Your task to perform on an android device: change the upload size in google photos Image 0: 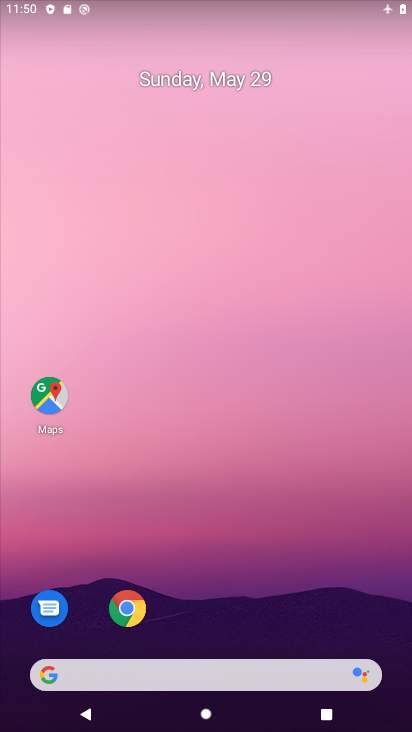
Step 0: drag from (208, 642) to (131, 149)
Your task to perform on an android device: change the upload size in google photos Image 1: 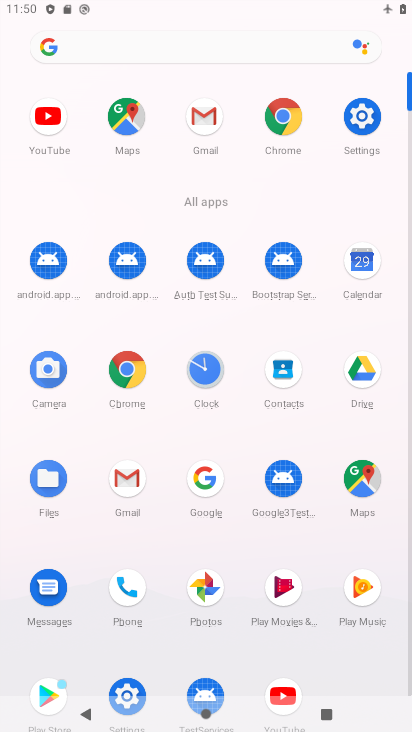
Step 1: click (203, 570)
Your task to perform on an android device: change the upload size in google photos Image 2: 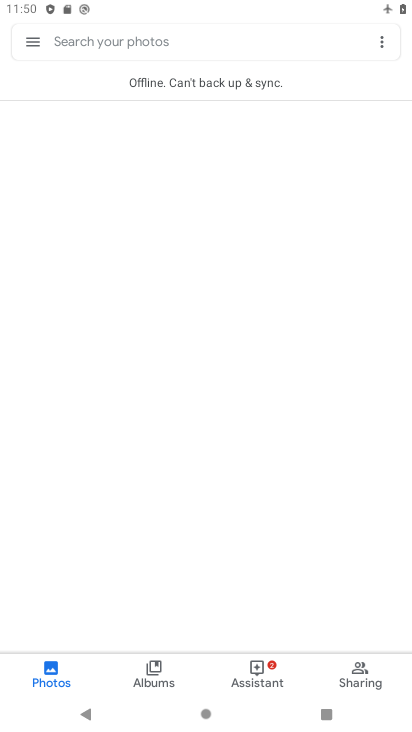
Step 2: click (36, 39)
Your task to perform on an android device: change the upload size in google photos Image 3: 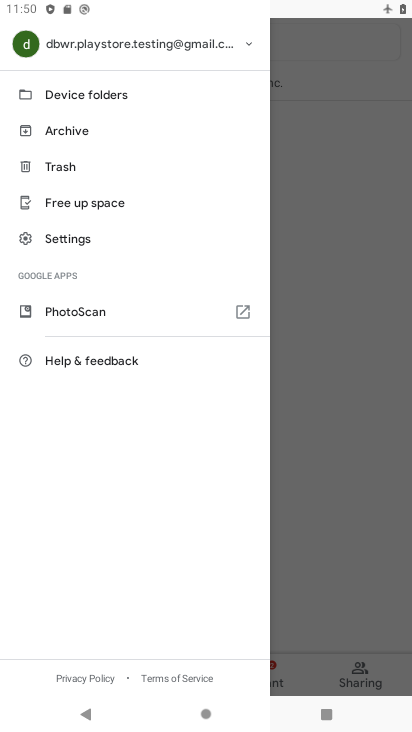
Step 3: click (56, 246)
Your task to perform on an android device: change the upload size in google photos Image 4: 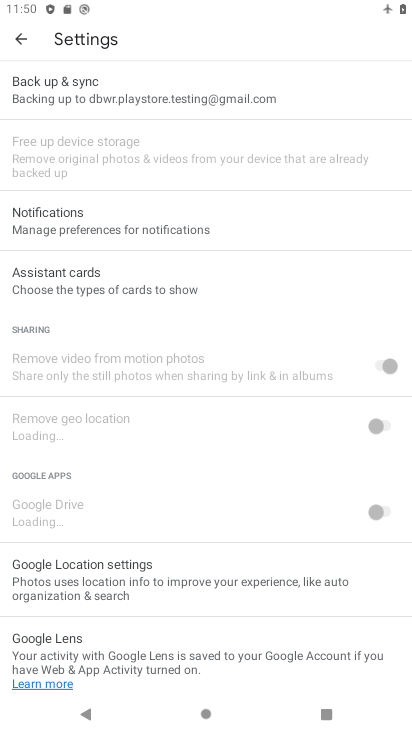
Step 4: click (44, 77)
Your task to perform on an android device: change the upload size in google photos Image 5: 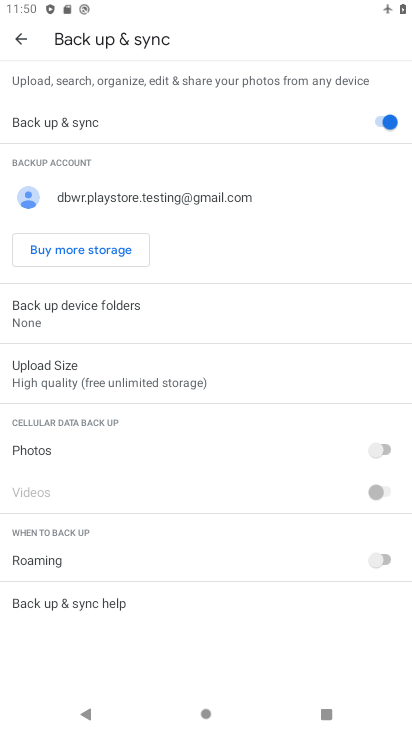
Step 5: click (70, 376)
Your task to perform on an android device: change the upload size in google photos Image 6: 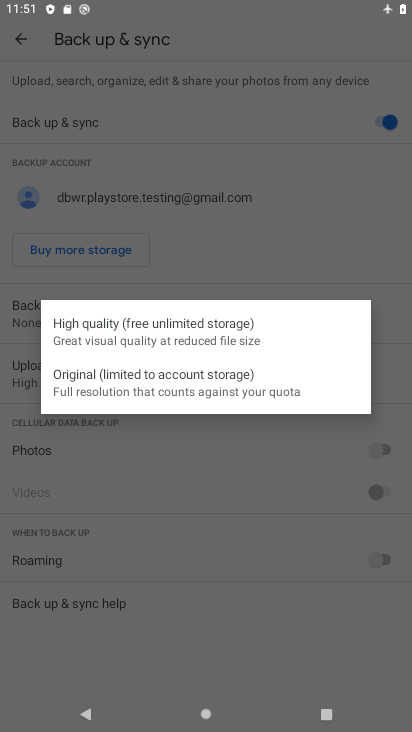
Step 6: click (204, 375)
Your task to perform on an android device: change the upload size in google photos Image 7: 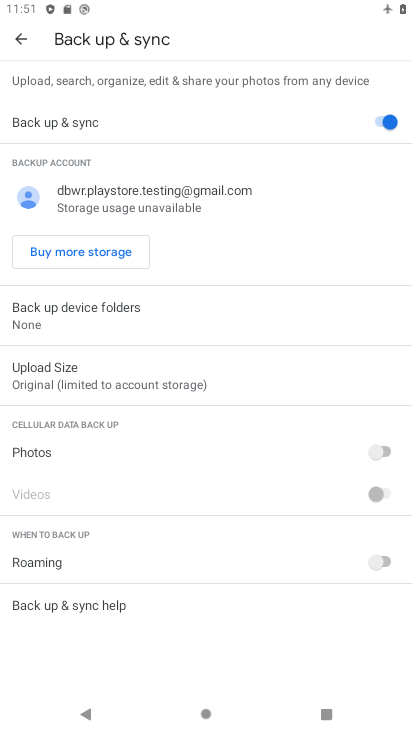
Step 7: task complete